Your task to perform on an android device: check out phone information Image 0: 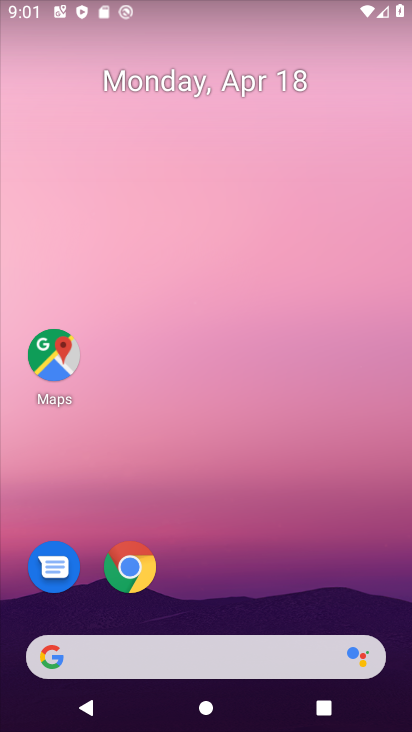
Step 0: click (206, 615)
Your task to perform on an android device: check out phone information Image 1: 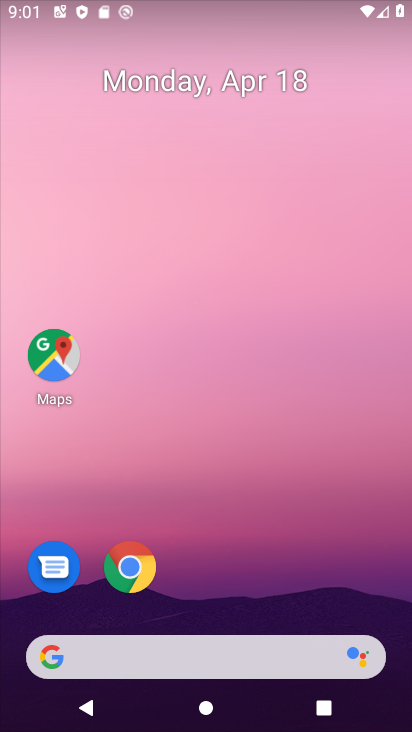
Step 1: drag from (202, 576) to (208, 83)
Your task to perform on an android device: check out phone information Image 2: 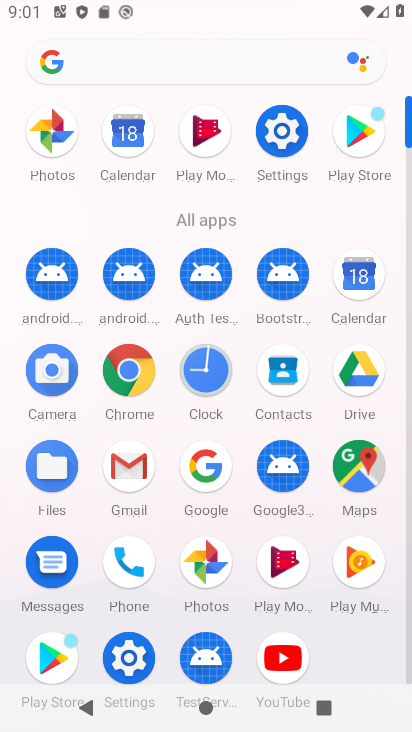
Step 2: click (282, 131)
Your task to perform on an android device: check out phone information Image 3: 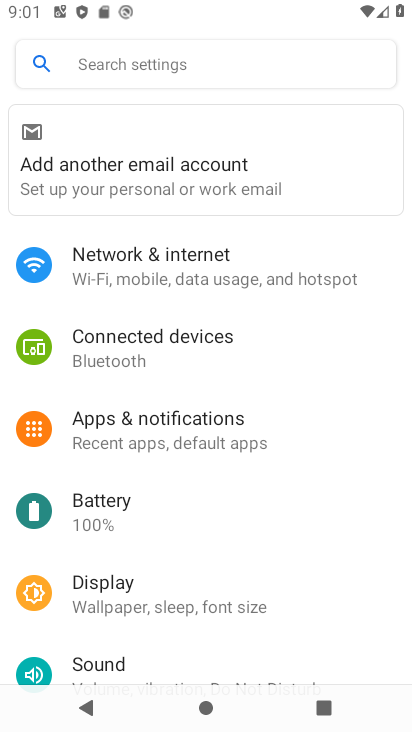
Step 3: drag from (190, 529) to (222, 53)
Your task to perform on an android device: check out phone information Image 4: 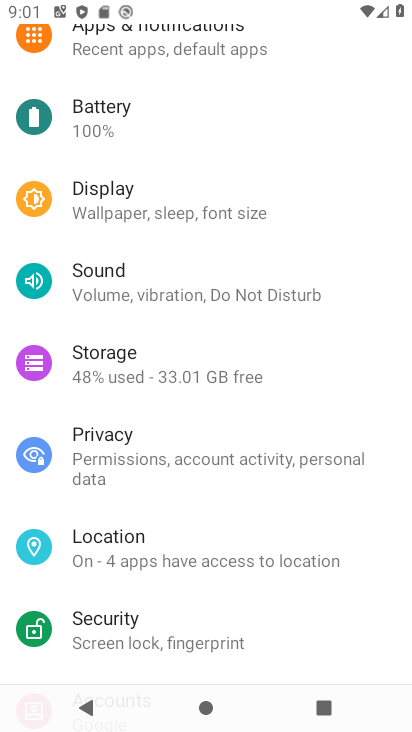
Step 4: drag from (205, 490) to (200, 0)
Your task to perform on an android device: check out phone information Image 5: 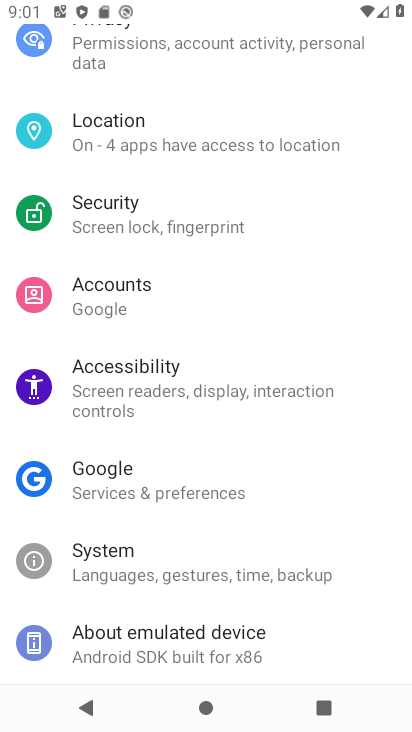
Step 5: click (245, 650)
Your task to perform on an android device: check out phone information Image 6: 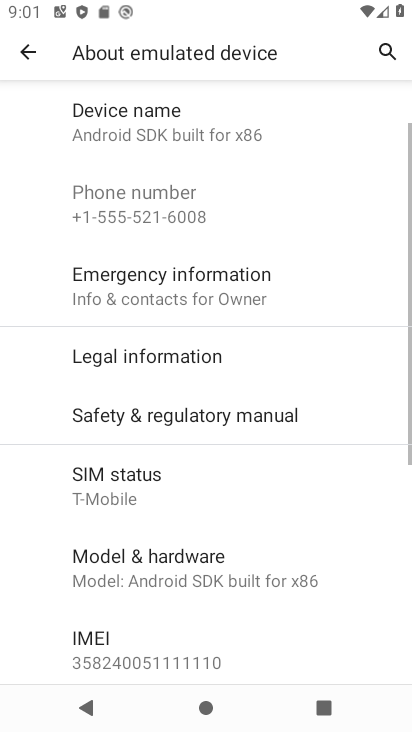
Step 6: task complete